Your task to perform on an android device: set the timer Image 0: 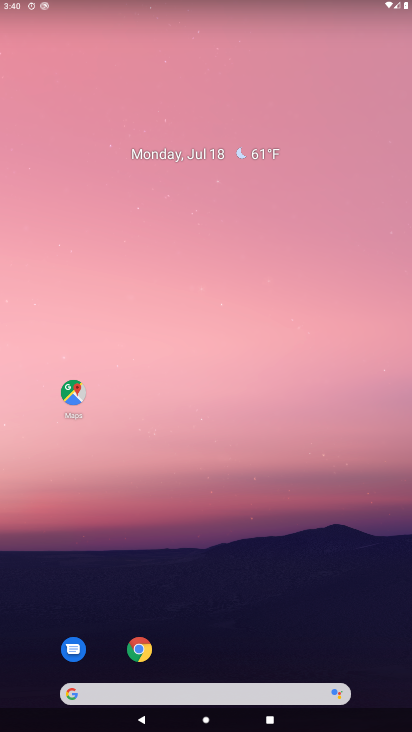
Step 0: drag from (33, 703) to (88, 432)
Your task to perform on an android device: set the timer Image 1: 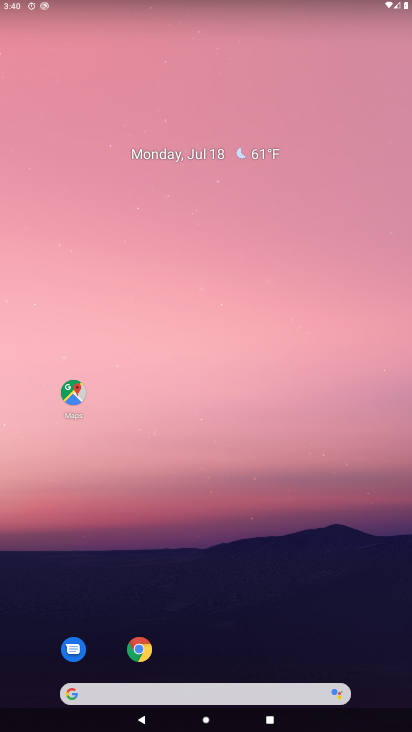
Step 1: drag from (22, 689) to (95, 371)
Your task to perform on an android device: set the timer Image 2: 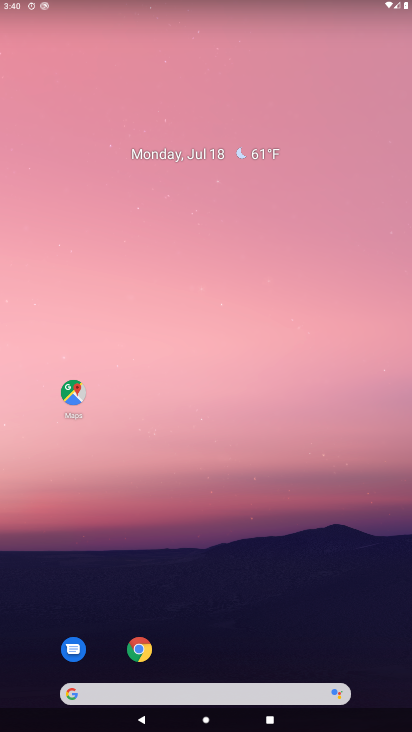
Step 2: drag from (82, 467) to (207, 69)
Your task to perform on an android device: set the timer Image 3: 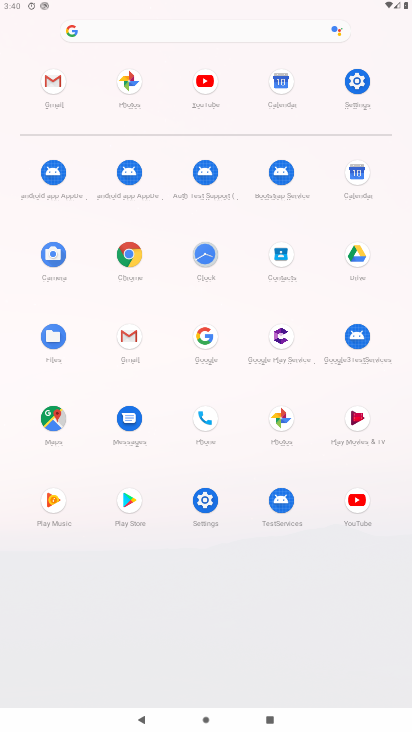
Step 3: click (210, 254)
Your task to perform on an android device: set the timer Image 4: 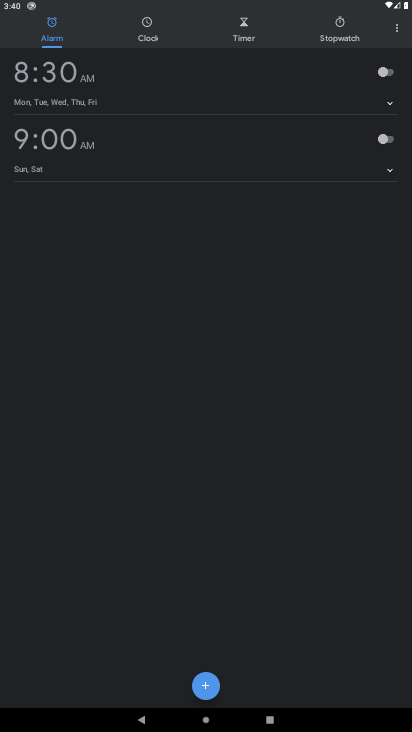
Step 4: click (239, 30)
Your task to perform on an android device: set the timer Image 5: 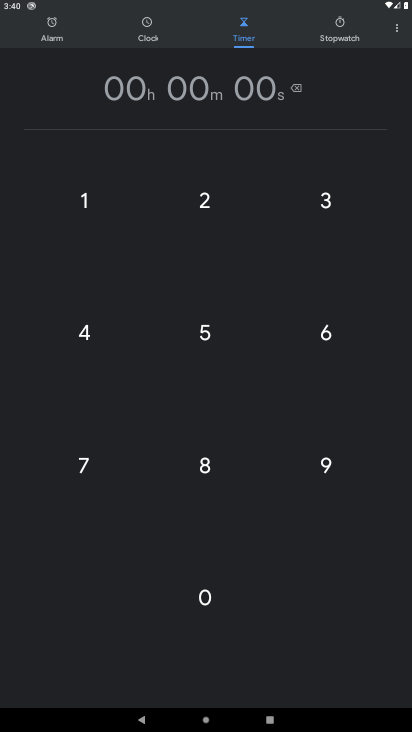
Step 5: click (212, 324)
Your task to perform on an android device: set the timer Image 6: 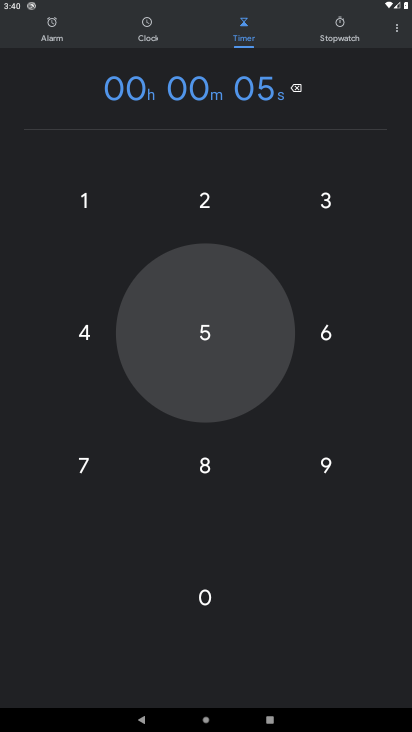
Step 6: click (96, 312)
Your task to perform on an android device: set the timer Image 7: 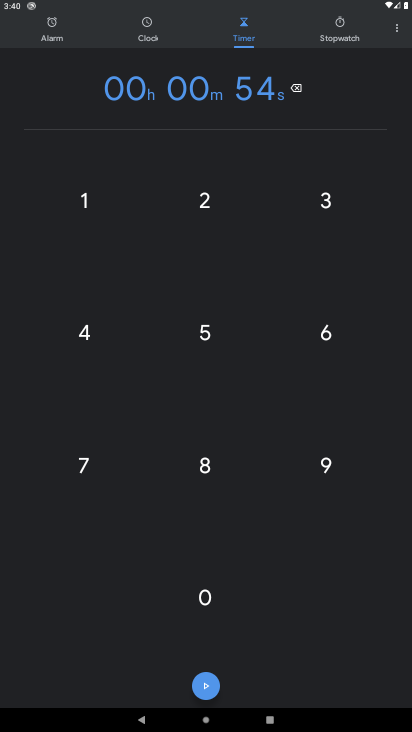
Step 7: click (209, 689)
Your task to perform on an android device: set the timer Image 8: 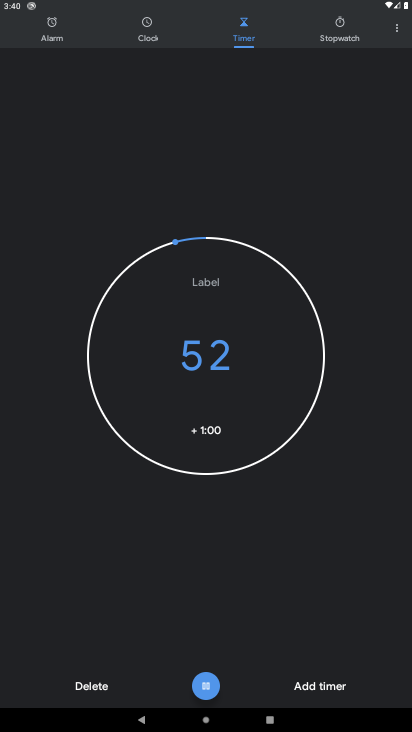
Step 8: click (207, 687)
Your task to perform on an android device: set the timer Image 9: 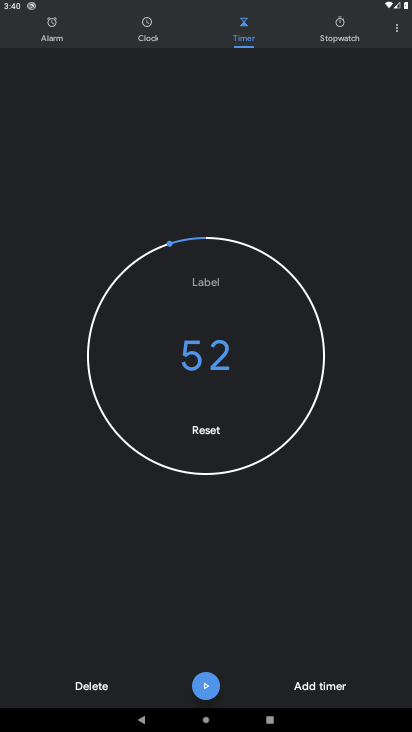
Step 9: task complete